Your task to perform on an android device: search for starred emails in the gmail app Image 0: 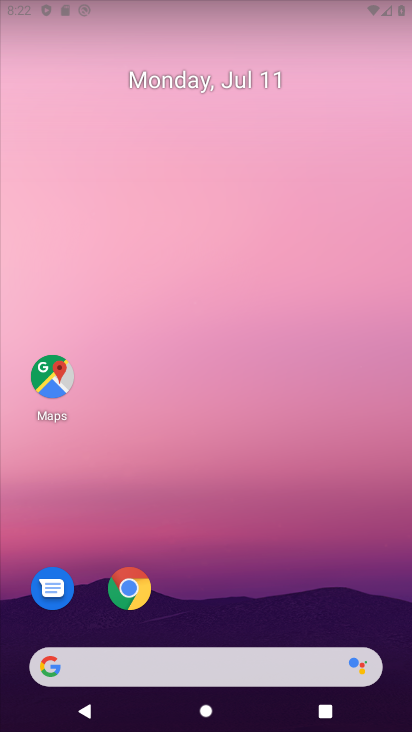
Step 0: drag from (168, 705) to (354, 120)
Your task to perform on an android device: search for starred emails in the gmail app Image 1: 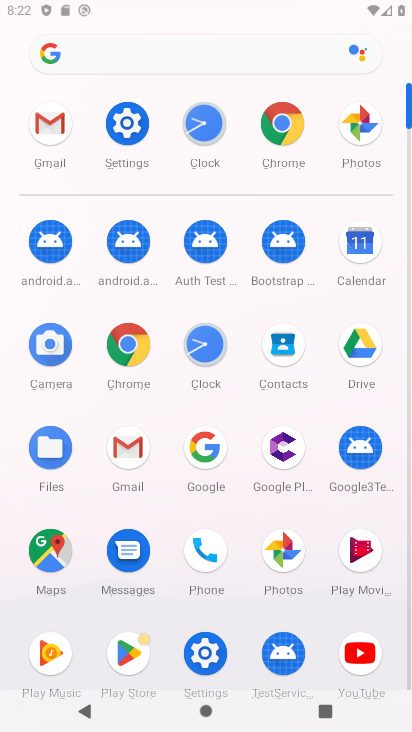
Step 1: click (60, 121)
Your task to perform on an android device: search for starred emails in the gmail app Image 2: 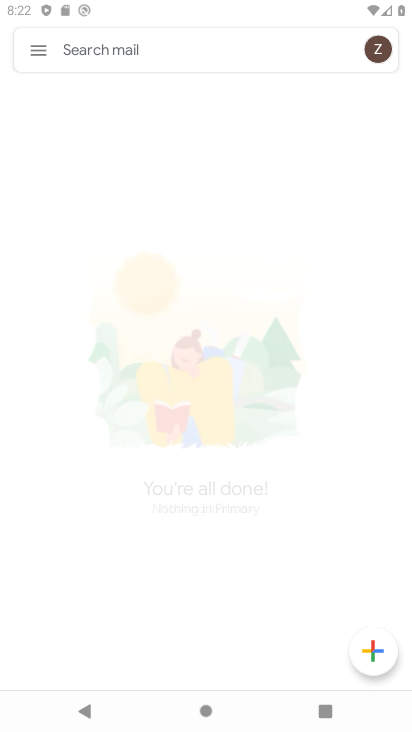
Step 2: click (29, 44)
Your task to perform on an android device: search for starred emails in the gmail app Image 3: 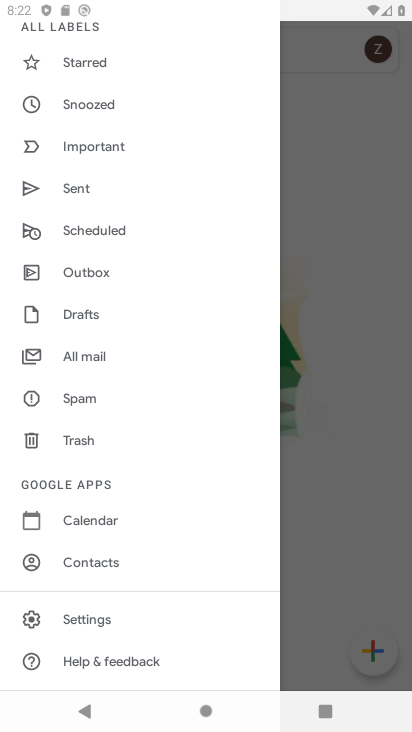
Step 3: click (109, 61)
Your task to perform on an android device: search for starred emails in the gmail app Image 4: 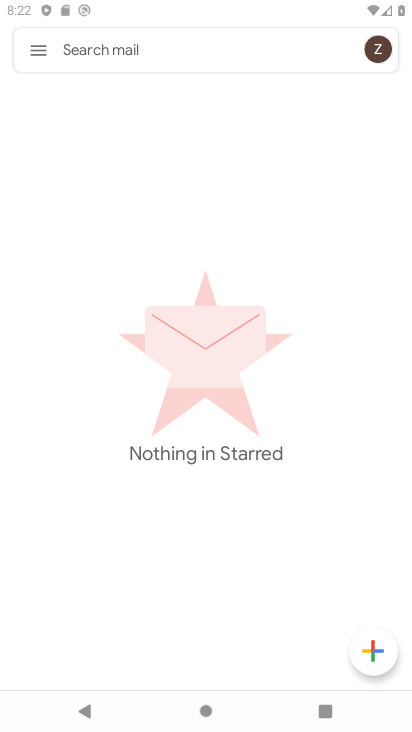
Step 4: task complete